Your task to perform on an android device: What's the weather going to be tomorrow? Image 0: 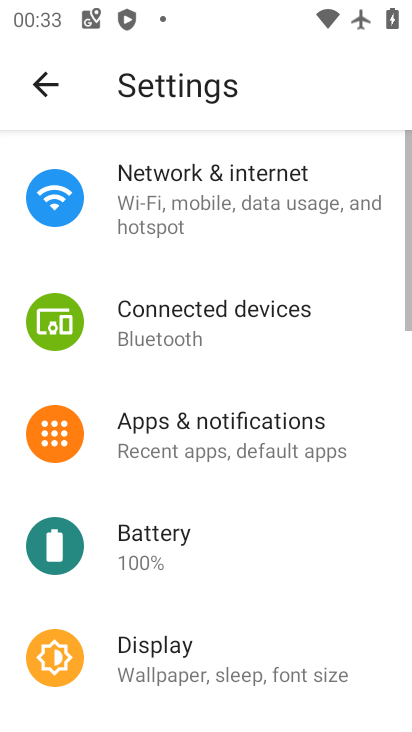
Step 0: press home button
Your task to perform on an android device: What's the weather going to be tomorrow? Image 1: 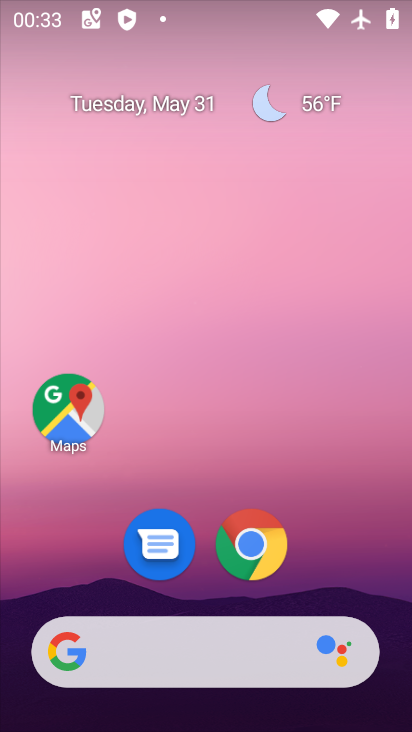
Step 1: click (157, 642)
Your task to perform on an android device: What's the weather going to be tomorrow? Image 2: 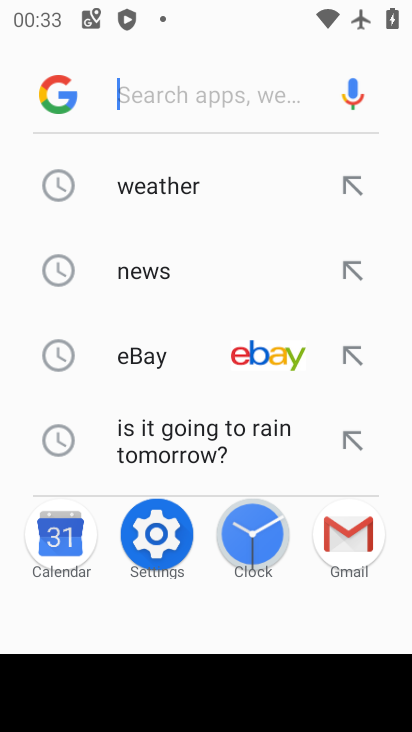
Step 2: click (132, 189)
Your task to perform on an android device: What's the weather going to be tomorrow? Image 3: 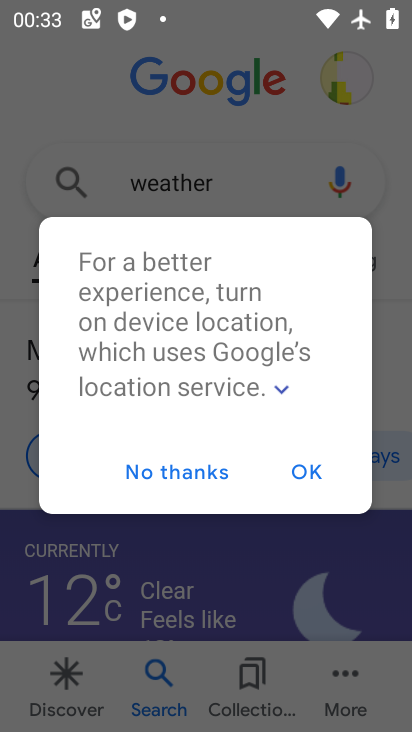
Step 3: click (305, 464)
Your task to perform on an android device: What's the weather going to be tomorrow? Image 4: 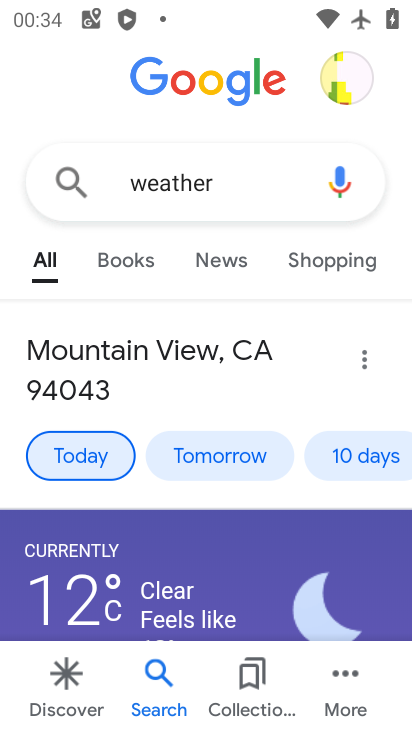
Step 4: click (225, 452)
Your task to perform on an android device: What's the weather going to be tomorrow? Image 5: 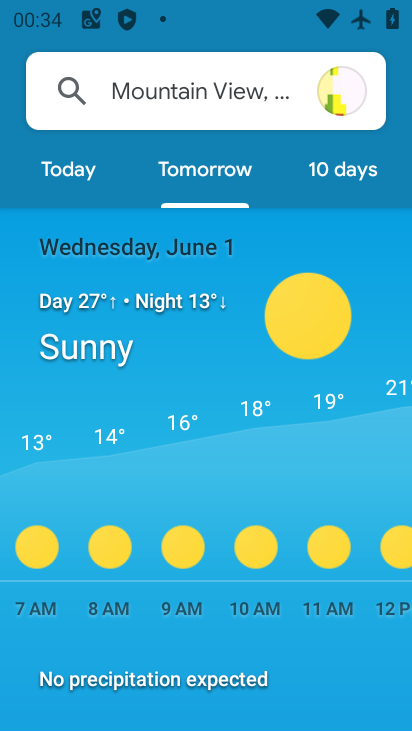
Step 5: task complete